Your task to perform on an android device: turn off sleep mode Image 0: 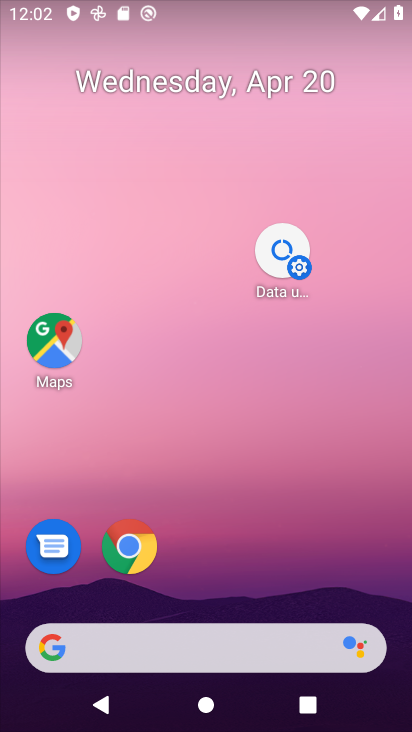
Step 0: click (245, 19)
Your task to perform on an android device: turn off sleep mode Image 1: 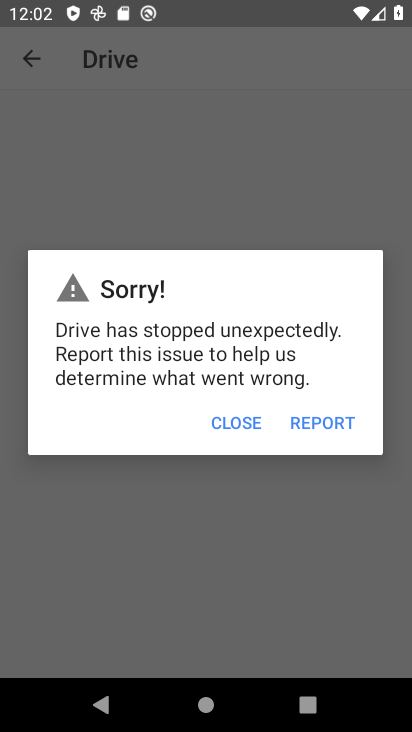
Step 1: press home button
Your task to perform on an android device: turn off sleep mode Image 2: 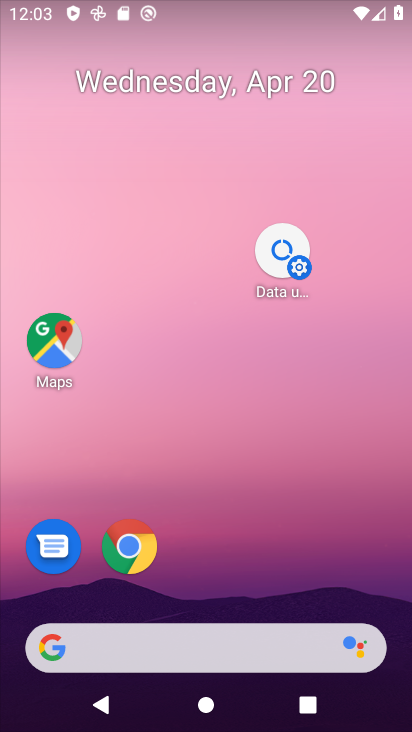
Step 2: drag from (217, 484) to (241, 16)
Your task to perform on an android device: turn off sleep mode Image 3: 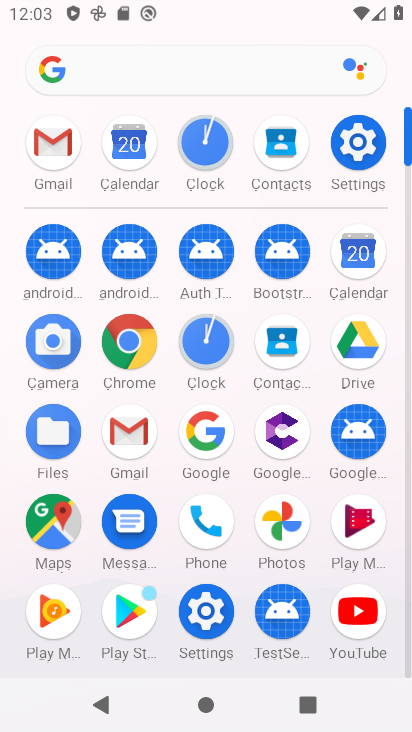
Step 3: click (358, 148)
Your task to perform on an android device: turn off sleep mode Image 4: 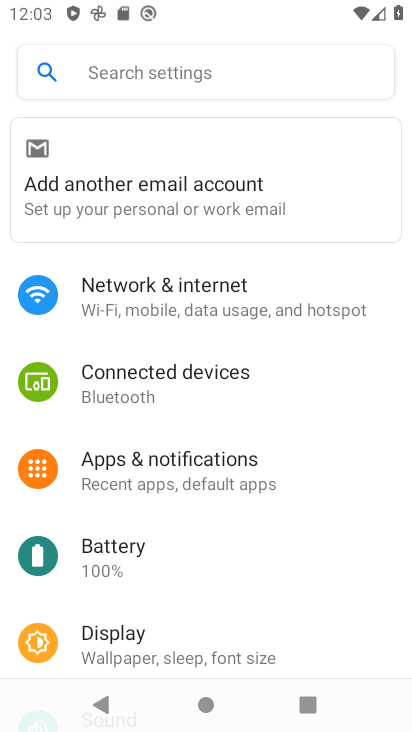
Step 4: click (331, 651)
Your task to perform on an android device: turn off sleep mode Image 5: 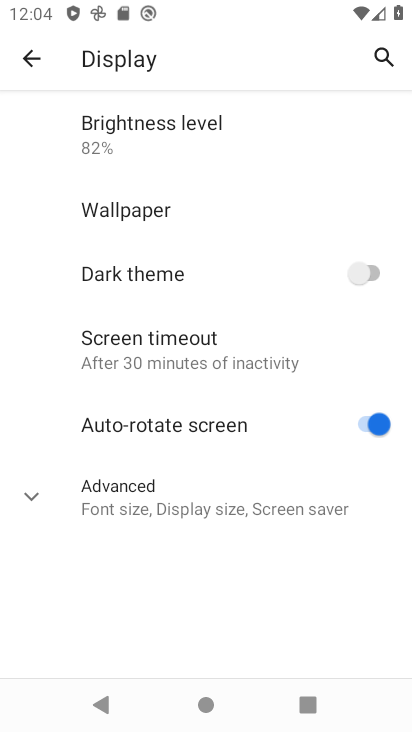
Step 5: task complete